Your task to perform on an android device: turn pop-ups off in chrome Image 0: 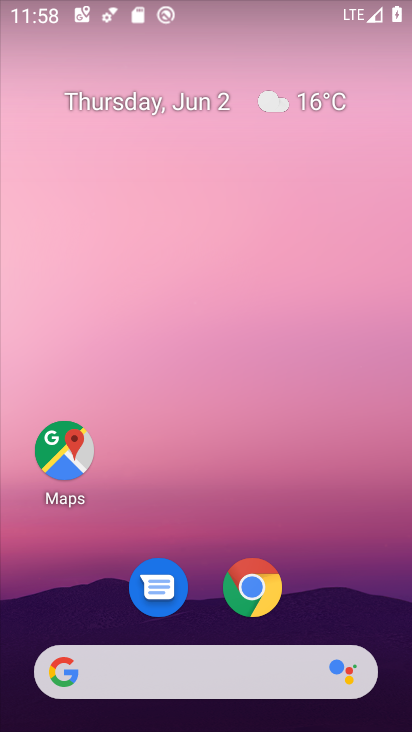
Step 0: click (249, 582)
Your task to perform on an android device: turn pop-ups off in chrome Image 1: 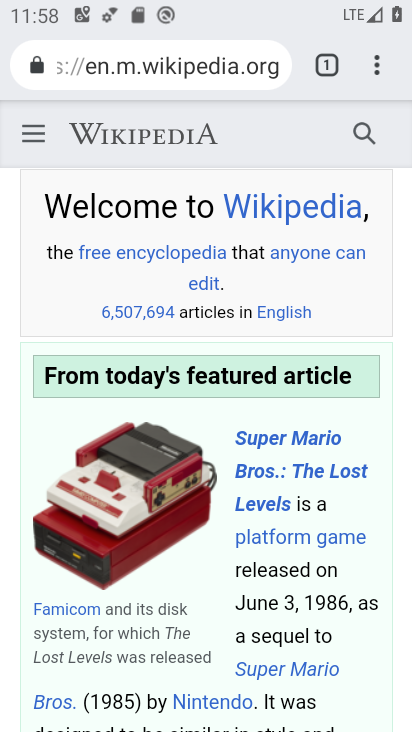
Step 1: click (374, 71)
Your task to perform on an android device: turn pop-ups off in chrome Image 2: 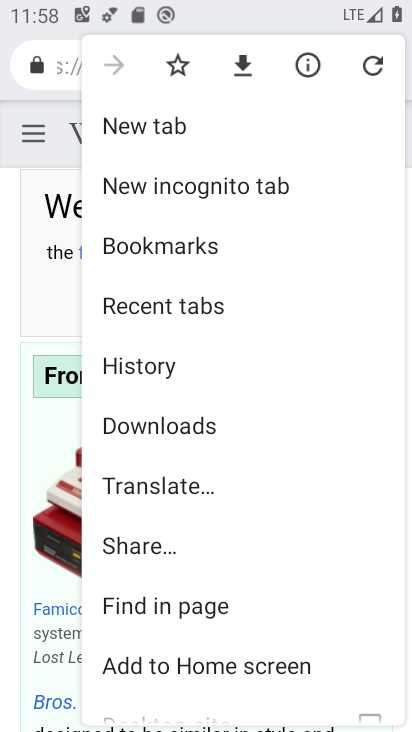
Step 2: drag from (253, 574) to (232, 276)
Your task to perform on an android device: turn pop-ups off in chrome Image 3: 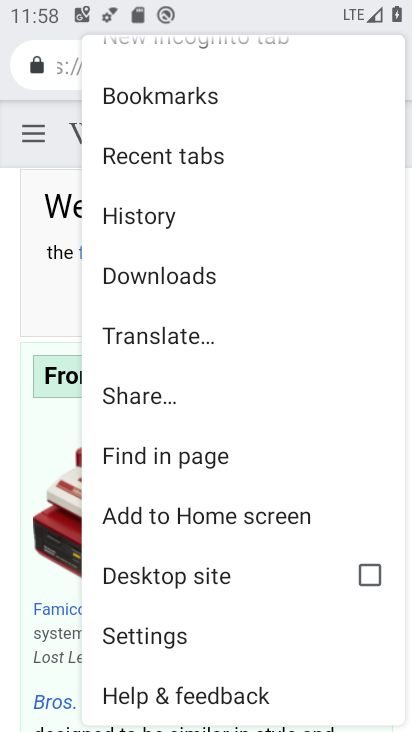
Step 3: click (212, 632)
Your task to perform on an android device: turn pop-ups off in chrome Image 4: 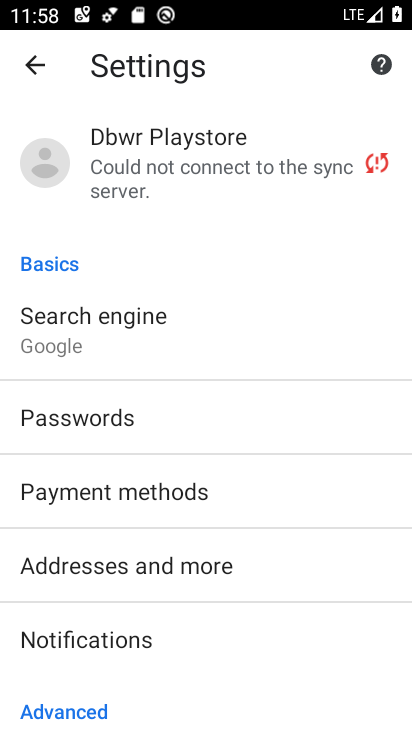
Step 4: drag from (212, 630) to (232, 231)
Your task to perform on an android device: turn pop-ups off in chrome Image 5: 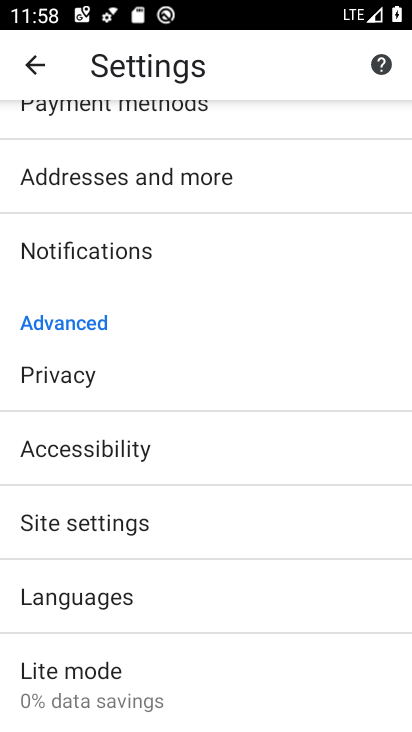
Step 5: click (227, 523)
Your task to perform on an android device: turn pop-ups off in chrome Image 6: 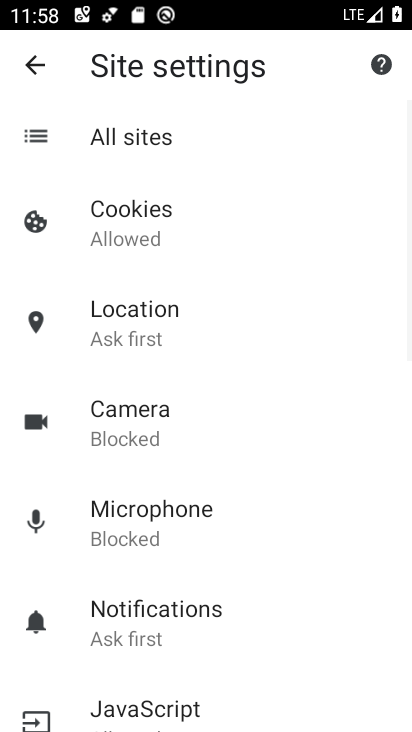
Step 6: drag from (266, 595) to (275, 220)
Your task to perform on an android device: turn pop-ups off in chrome Image 7: 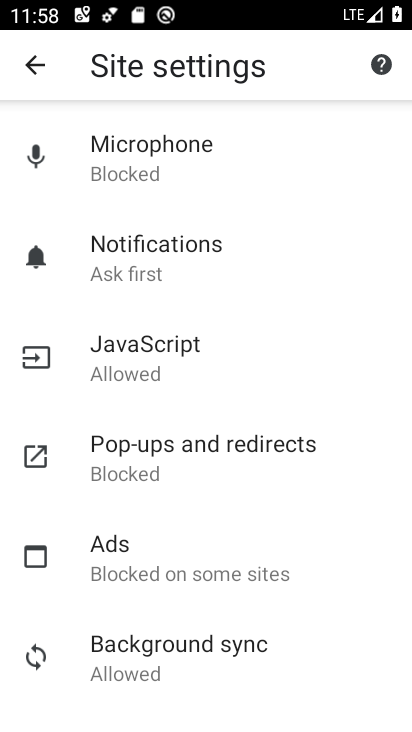
Step 7: click (239, 449)
Your task to perform on an android device: turn pop-ups off in chrome Image 8: 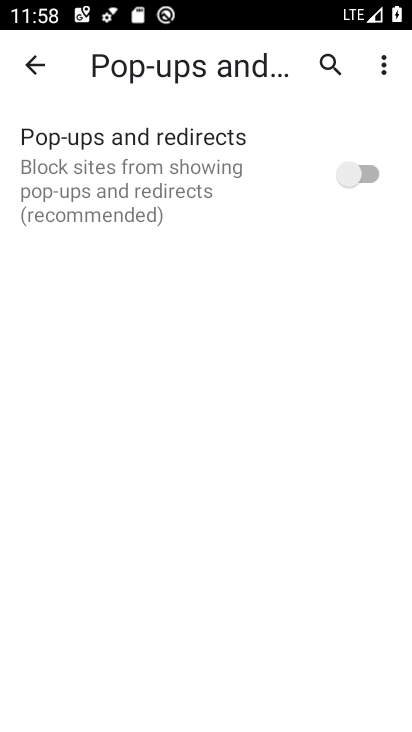
Step 8: task complete